Your task to perform on an android device: turn notification dots on Image 0: 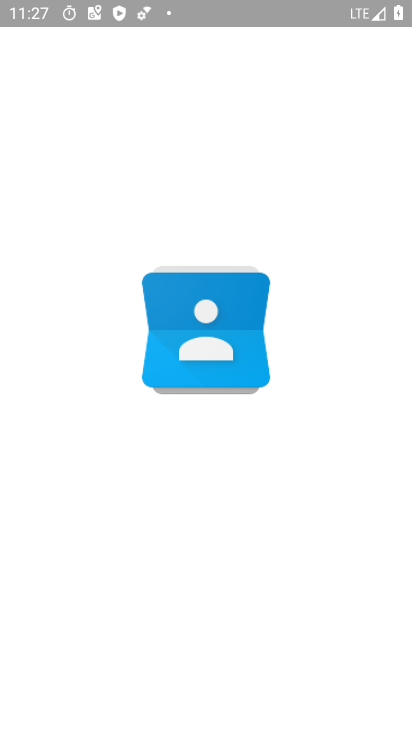
Step 0: click (290, 607)
Your task to perform on an android device: turn notification dots on Image 1: 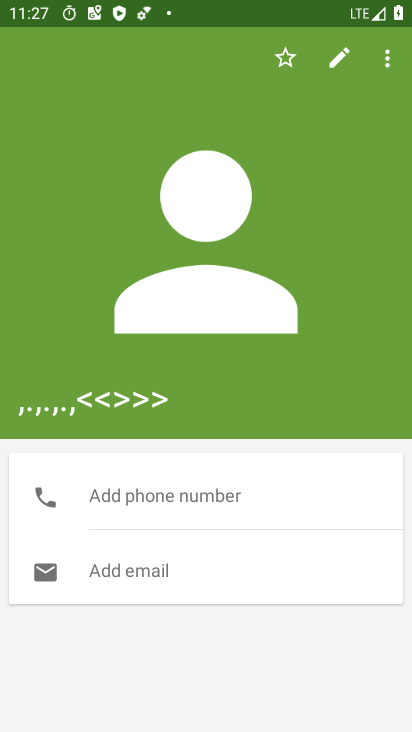
Step 1: press home button
Your task to perform on an android device: turn notification dots on Image 2: 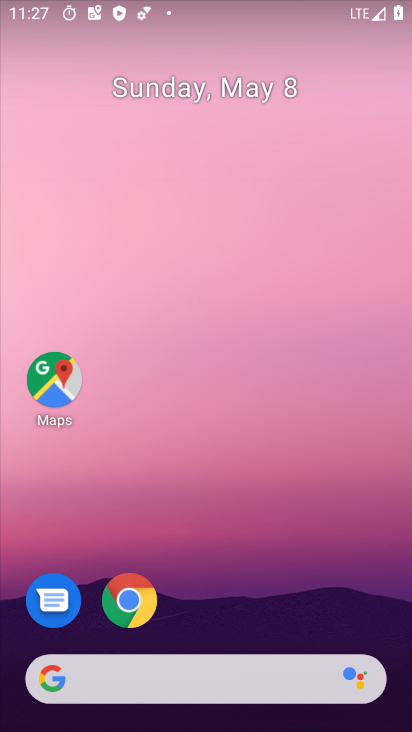
Step 2: drag from (260, 630) to (278, 307)
Your task to perform on an android device: turn notification dots on Image 3: 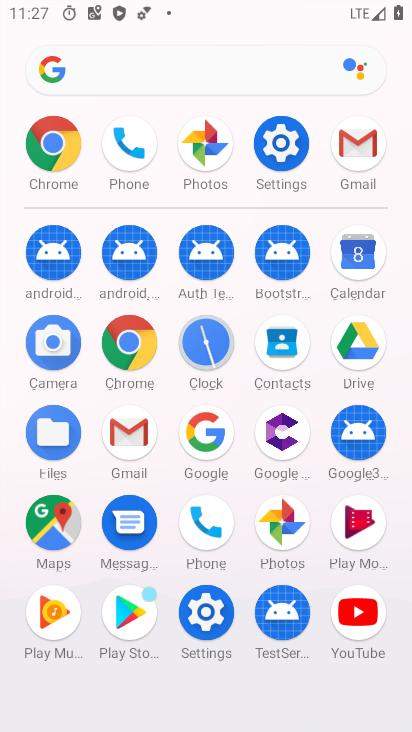
Step 3: click (291, 166)
Your task to perform on an android device: turn notification dots on Image 4: 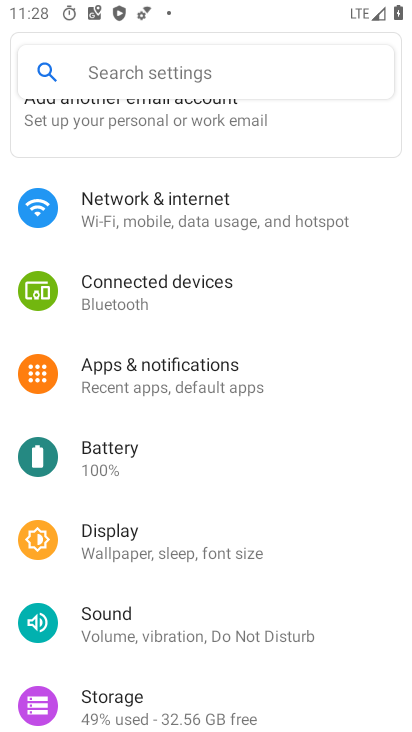
Step 4: click (236, 399)
Your task to perform on an android device: turn notification dots on Image 5: 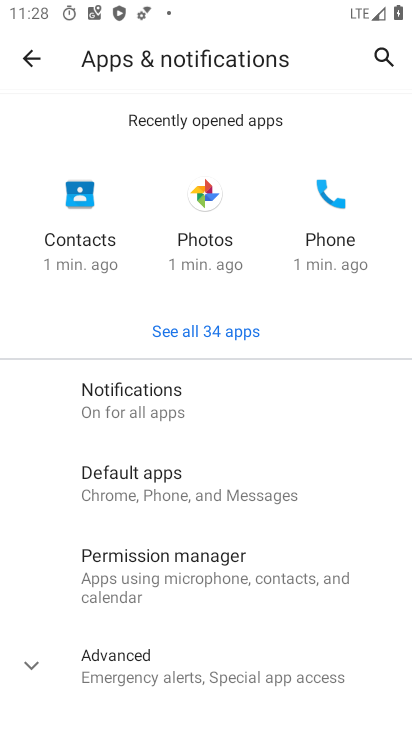
Step 5: drag from (207, 573) to (268, 314)
Your task to perform on an android device: turn notification dots on Image 6: 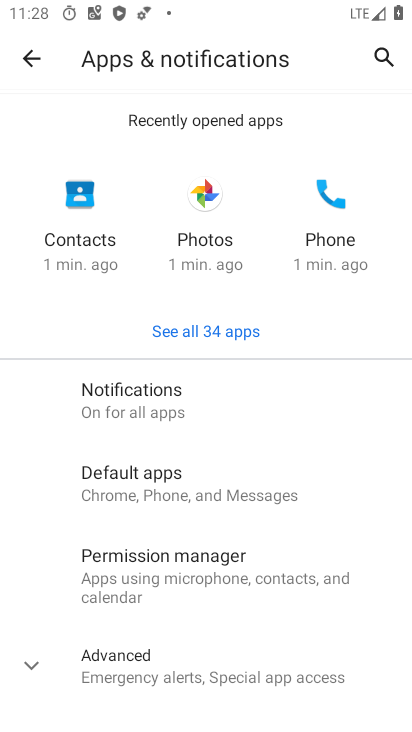
Step 6: click (152, 661)
Your task to perform on an android device: turn notification dots on Image 7: 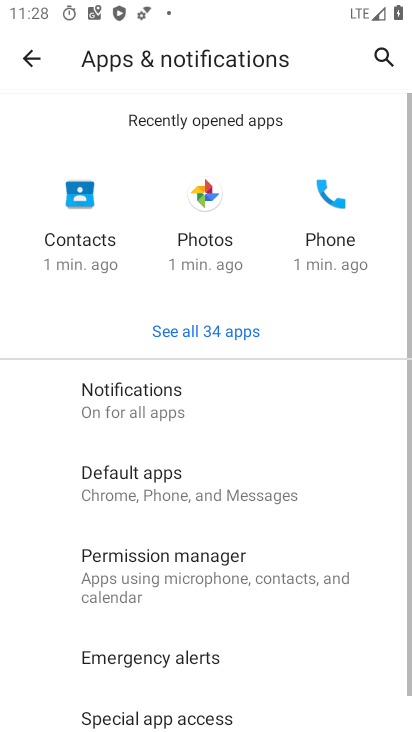
Step 7: drag from (162, 637) to (261, 329)
Your task to perform on an android device: turn notification dots on Image 8: 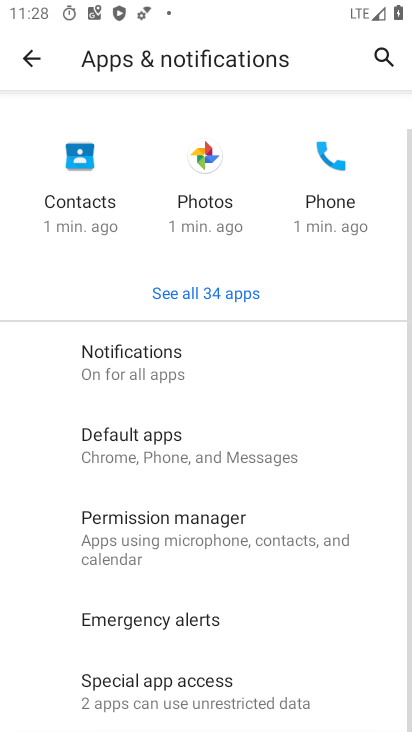
Step 8: click (205, 696)
Your task to perform on an android device: turn notification dots on Image 9: 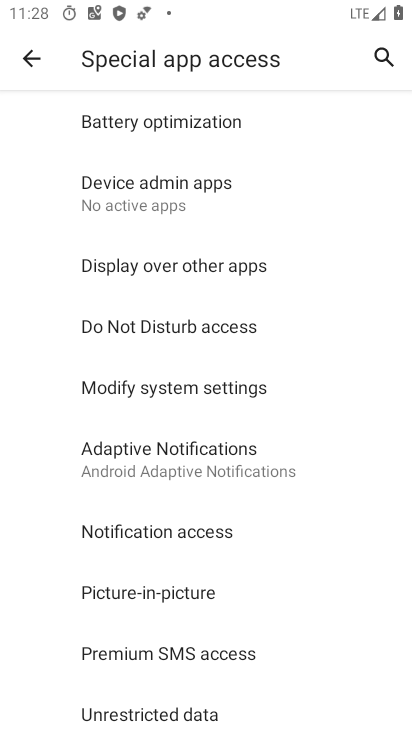
Step 9: drag from (194, 600) to (311, 188)
Your task to perform on an android device: turn notification dots on Image 10: 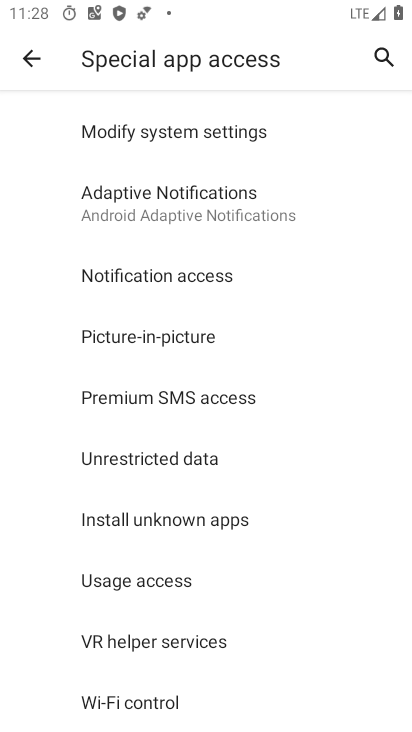
Step 10: drag from (232, 444) to (260, 114)
Your task to perform on an android device: turn notification dots on Image 11: 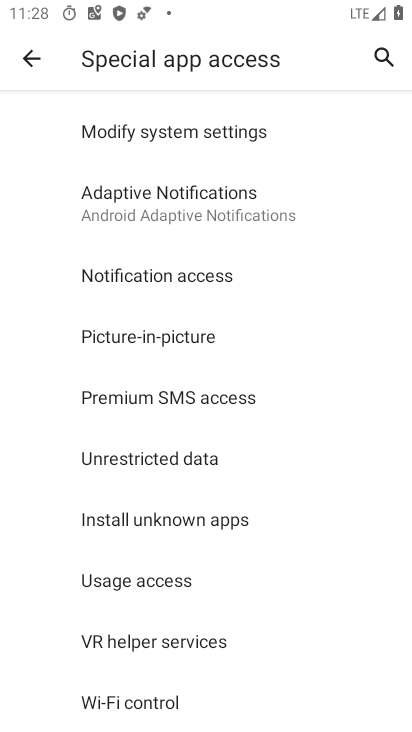
Step 11: click (22, 65)
Your task to perform on an android device: turn notification dots on Image 12: 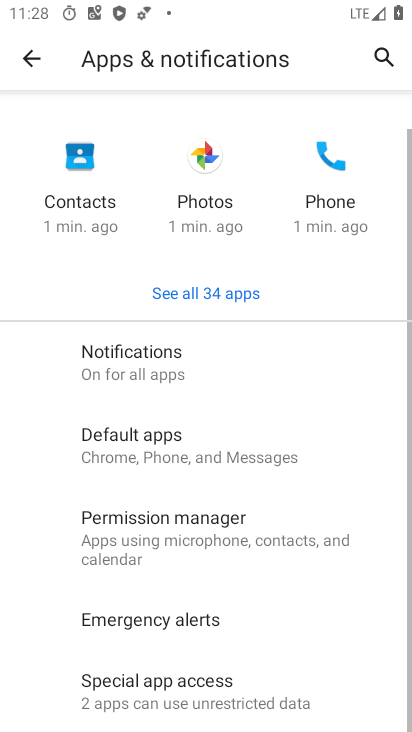
Step 12: click (151, 367)
Your task to perform on an android device: turn notification dots on Image 13: 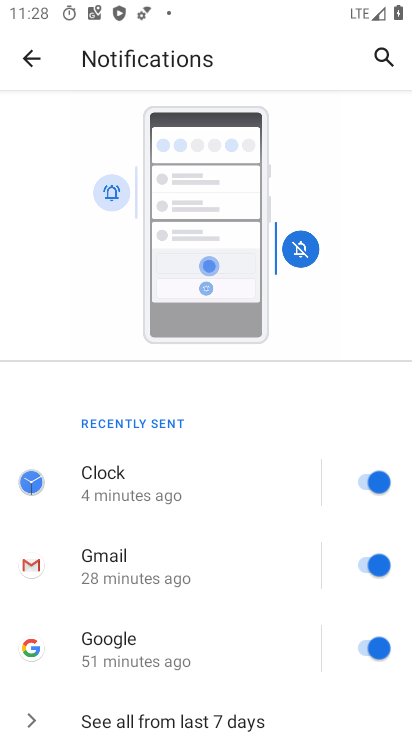
Step 13: drag from (178, 573) to (270, 110)
Your task to perform on an android device: turn notification dots on Image 14: 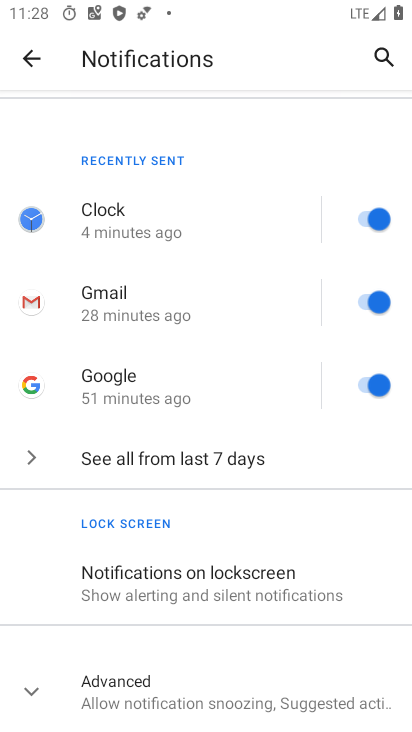
Step 14: click (174, 676)
Your task to perform on an android device: turn notification dots on Image 15: 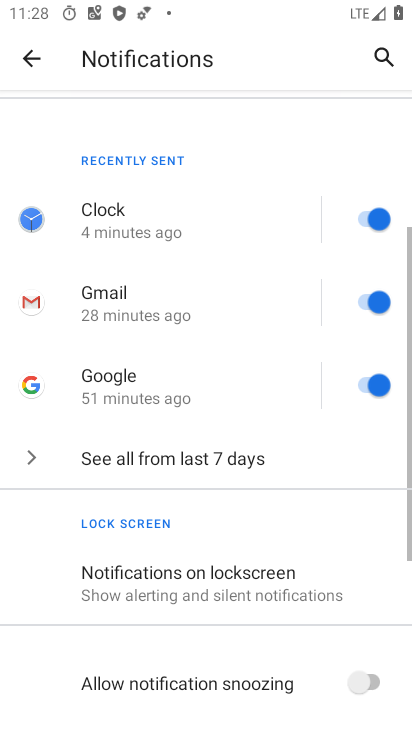
Step 15: task complete